Your task to perform on an android device: turn off wifi Image 0: 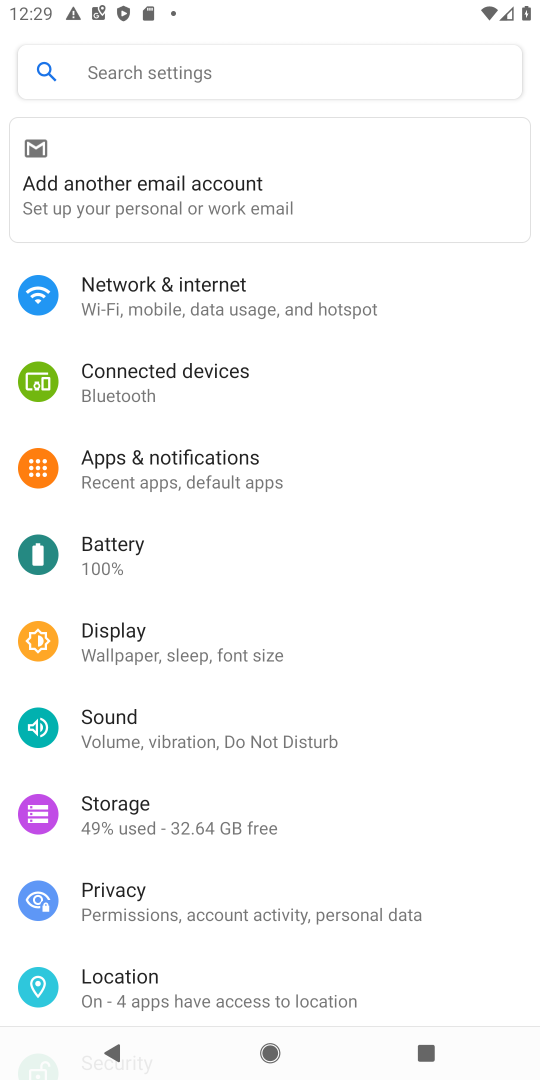
Step 0: press back button
Your task to perform on an android device: turn off wifi Image 1: 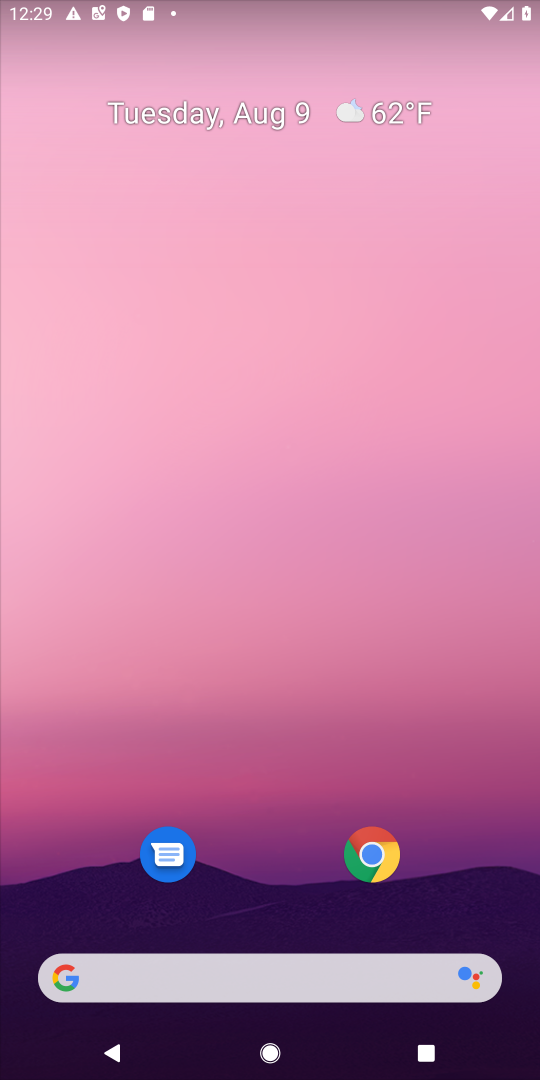
Step 1: drag from (124, 11) to (236, 754)
Your task to perform on an android device: turn off wifi Image 2: 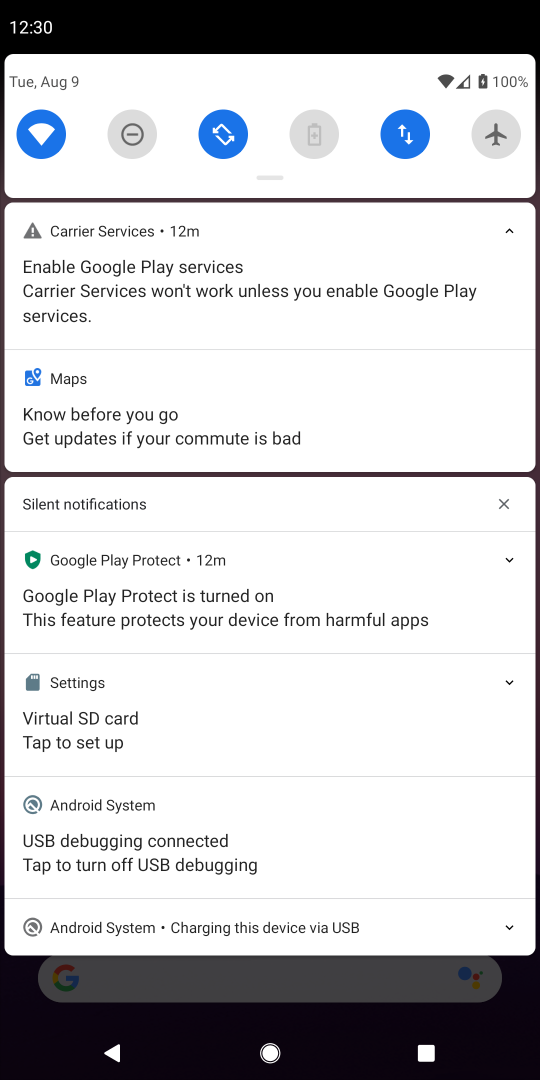
Step 2: click (43, 132)
Your task to perform on an android device: turn off wifi Image 3: 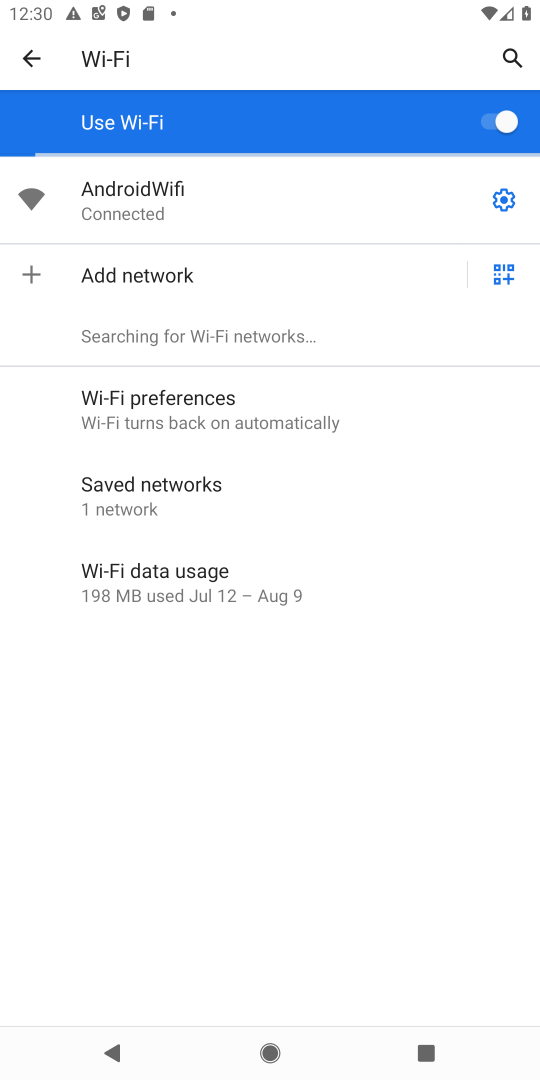
Step 3: click (507, 118)
Your task to perform on an android device: turn off wifi Image 4: 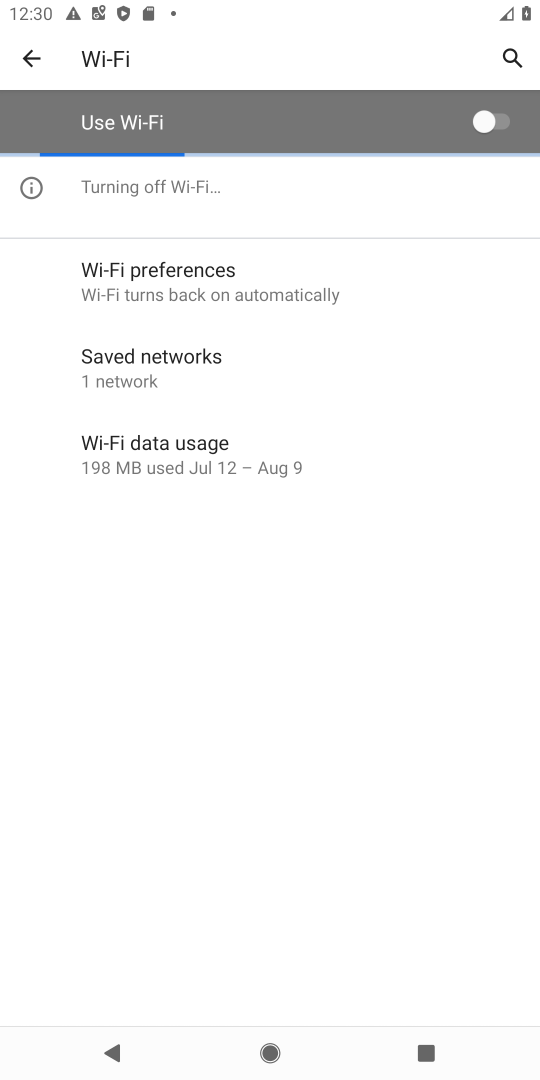
Step 4: task complete